Your task to perform on an android device: Show me productivity apps on the Play Store Image 0: 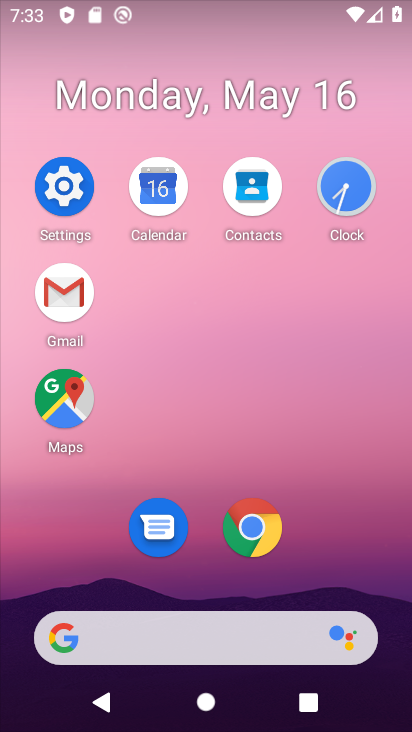
Step 0: drag from (298, 586) to (238, 147)
Your task to perform on an android device: Show me productivity apps on the Play Store Image 1: 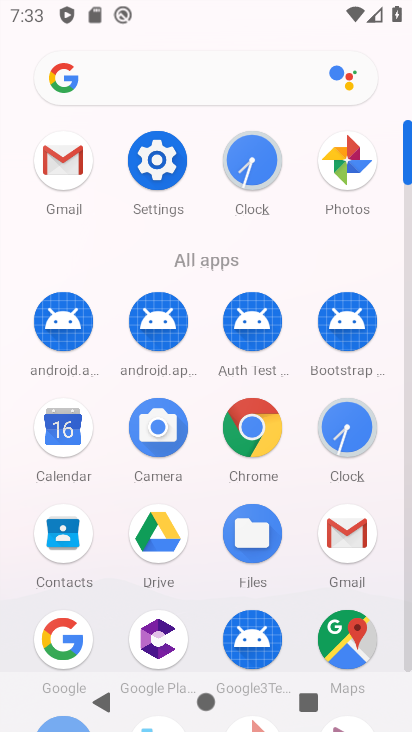
Step 1: drag from (203, 604) to (214, 262)
Your task to perform on an android device: Show me productivity apps on the Play Store Image 2: 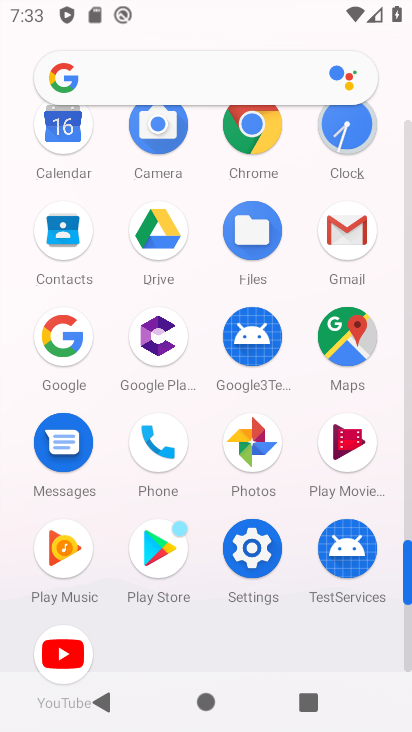
Step 2: click (167, 554)
Your task to perform on an android device: Show me productivity apps on the Play Store Image 3: 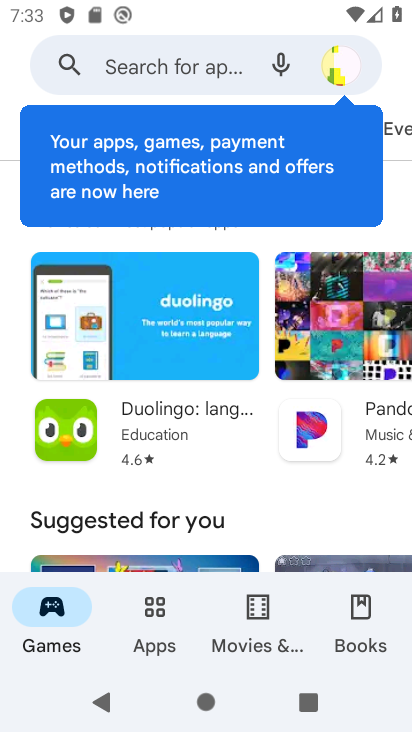
Step 3: click (160, 612)
Your task to perform on an android device: Show me productivity apps on the Play Store Image 4: 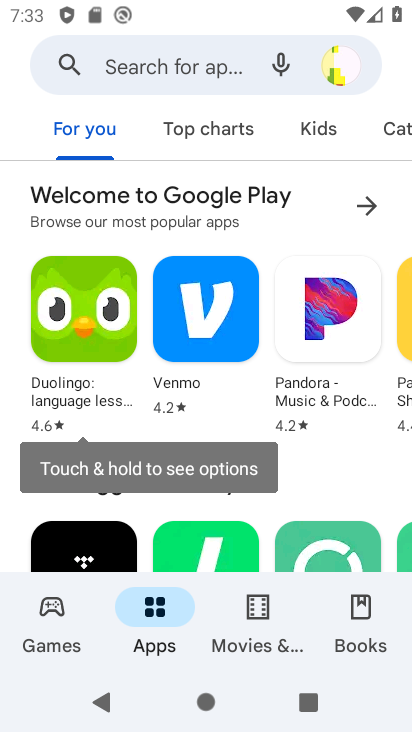
Step 4: click (388, 121)
Your task to perform on an android device: Show me productivity apps on the Play Store Image 5: 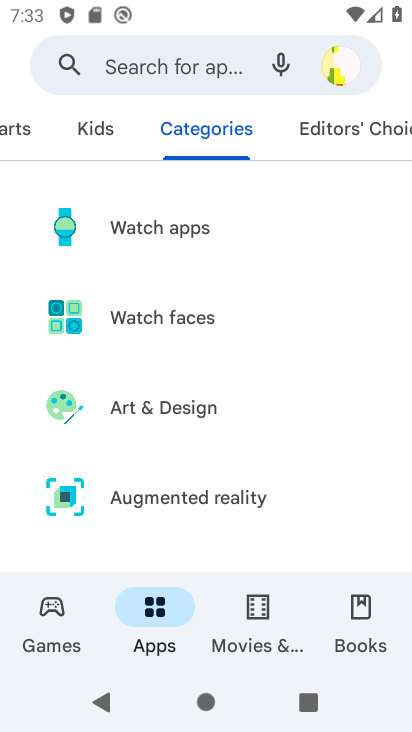
Step 5: drag from (182, 517) to (195, 131)
Your task to perform on an android device: Show me productivity apps on the Play Store Image 6: 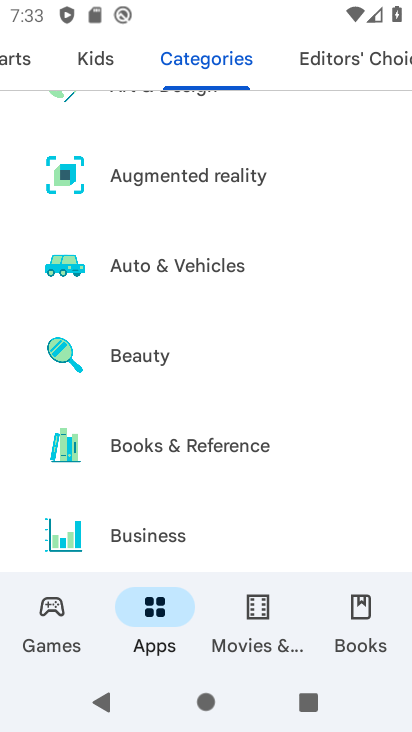
Step 6: drag from (195, 518) to (201, 186)
Your task to perform on an android device: Show me productivity apps on the Play Store Image 7: 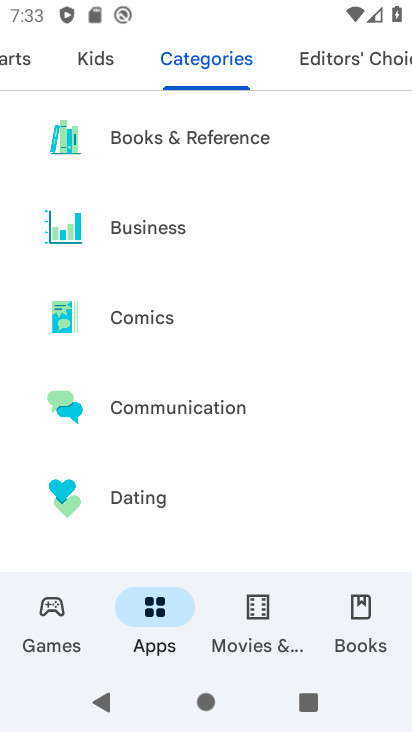
Step 7: drag from (204, 501) to (203, 194)
Your task to perform on an android device: Show me productivity apps on the Play Store Image 8: 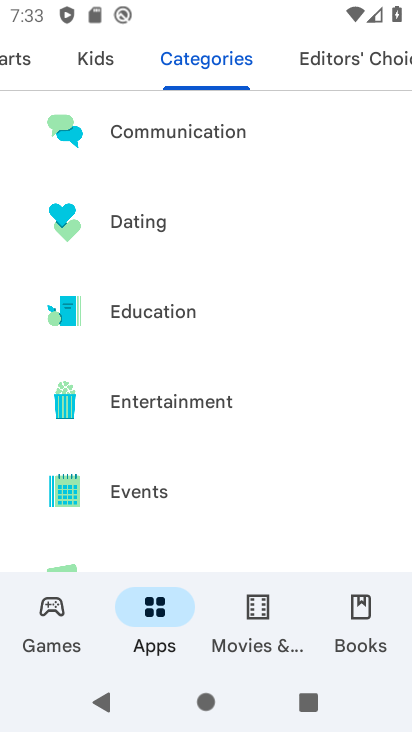
Step 8: drag from (196, 511) to (243, 85)
Your task to perform on an android device: Show me productivity apps on the Play Store Image 9: 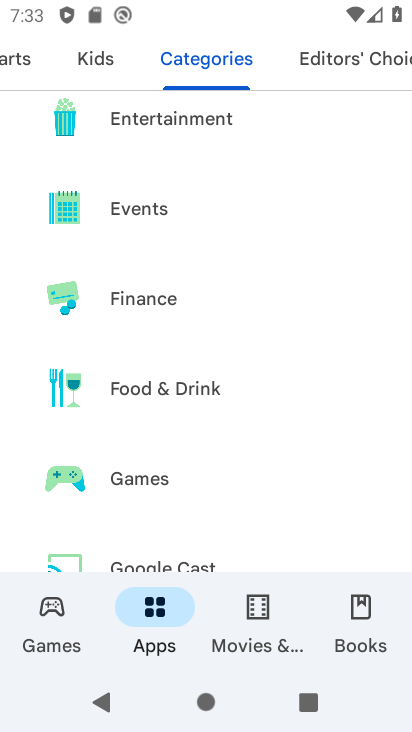
Step 9: drag from (208, 477) to (191, 157)
Your task to perform on an android device: Show me productivity apps on the Play Store Image 10: 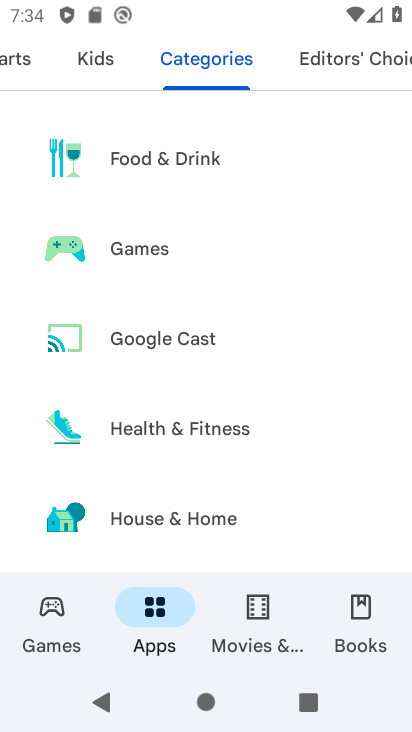
Step 10: drag from (223, 503) to (250, 182)
Your task to perform on an android device: Show me productivity apps on the Play Store Image 11: 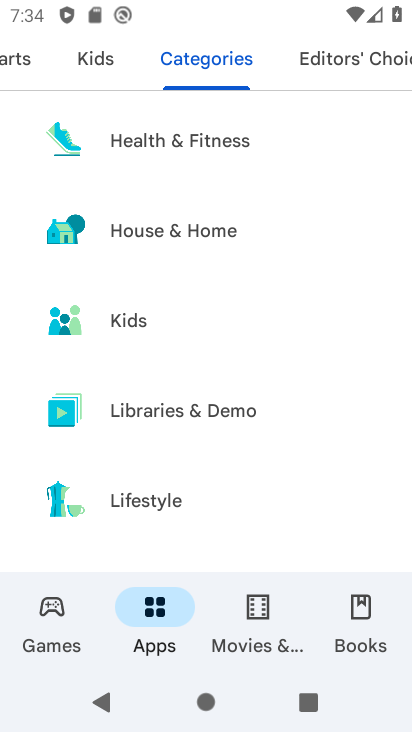
Step 11: drag from (222, 497) to (251, 90)
Your task to perform on an android device: Show me productivity apps on the Play Store Image 12: 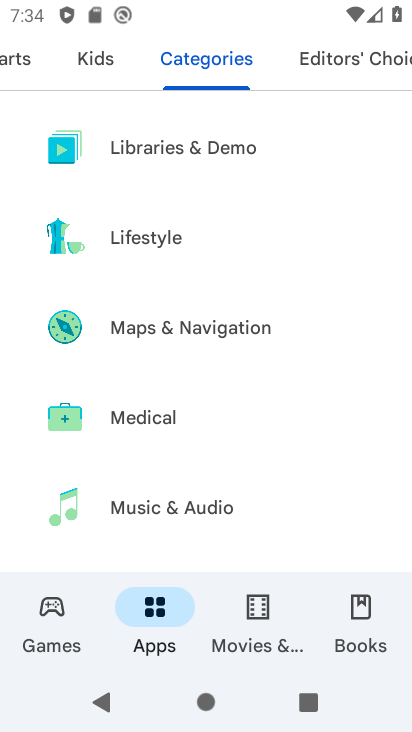
Step 12: drag from (256, 431) to (280, 117)
Your task to perform on an android device: Show me productivity apps on the Play Store Image 13: 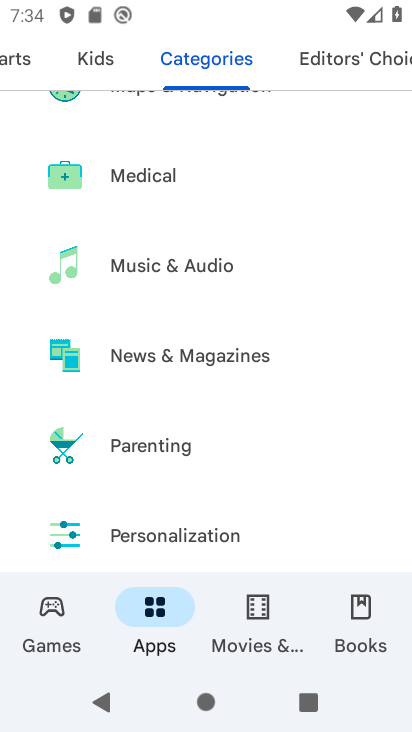
Step 13: drag from (230, 501) to (278, 179)
Your task to perform on an android device: Show me productivity apps on the Play Store Image 14: 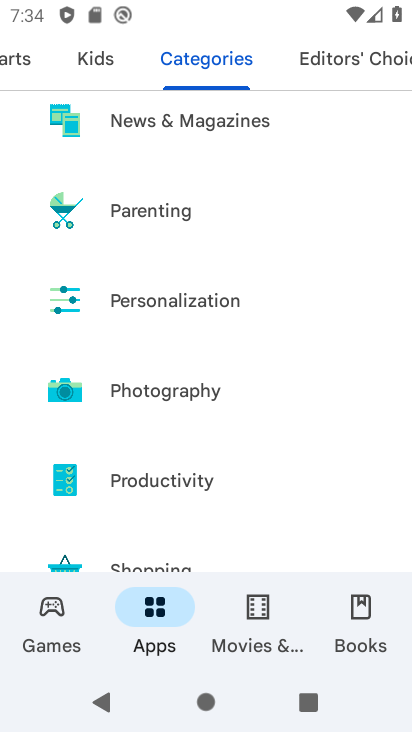
Step 14: click (229, 480)
Your task to perform on an android device: Show me productivity apps on the Play Store Image 15: 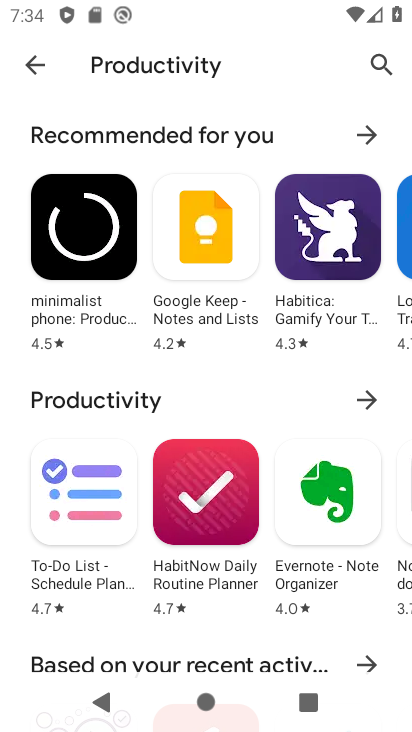
Step 15: task complete